Your task to perform on an android device: Open Google Image 0: 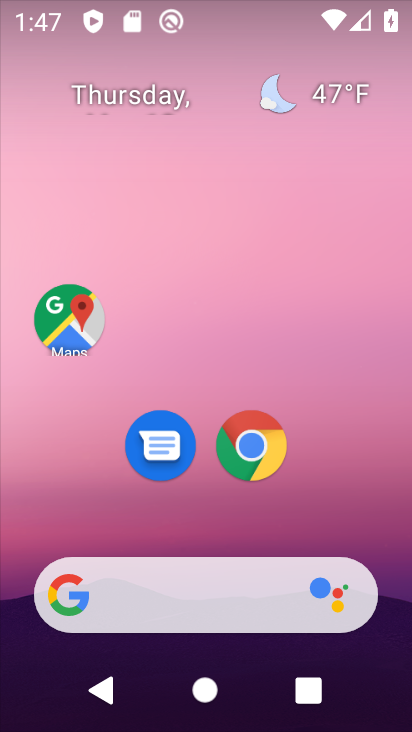
Step 0: drag from (194, 517) to (191, 176)
Your task to perform on an android device: Open Google Image 1: 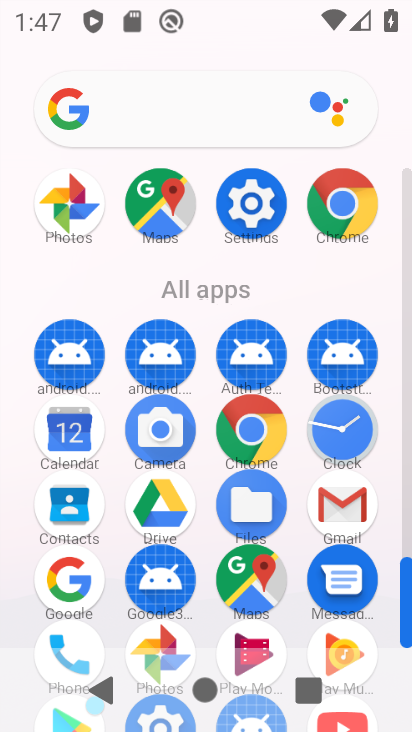
Step 1: drag from (195, 505) to (209, 281)
Your task to perform on an android device: Open Google Image 2: 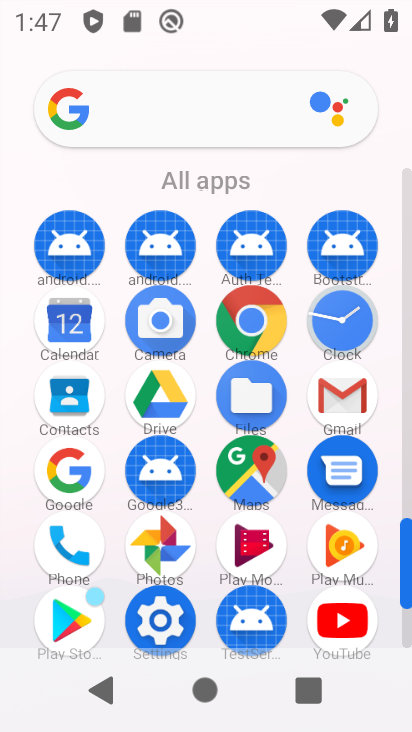
Step 2: click (77, 473)
Your task to perform on an android device: Open Google Image 3: 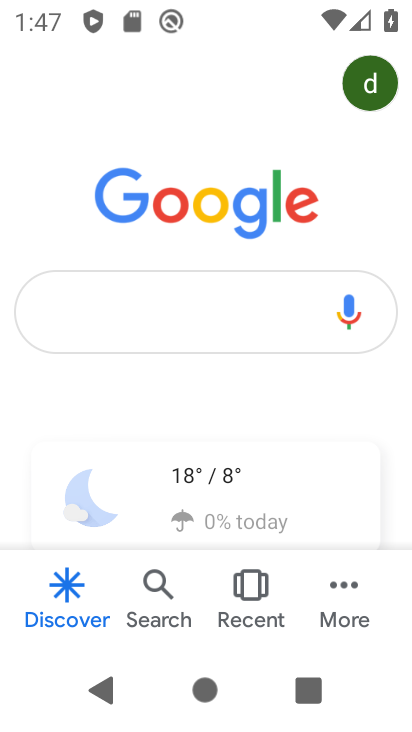
Step 3: task complete